Your task to perform on an android device: open app "Adobe Express: Graphic Design" (install if not already installed) Image 0: 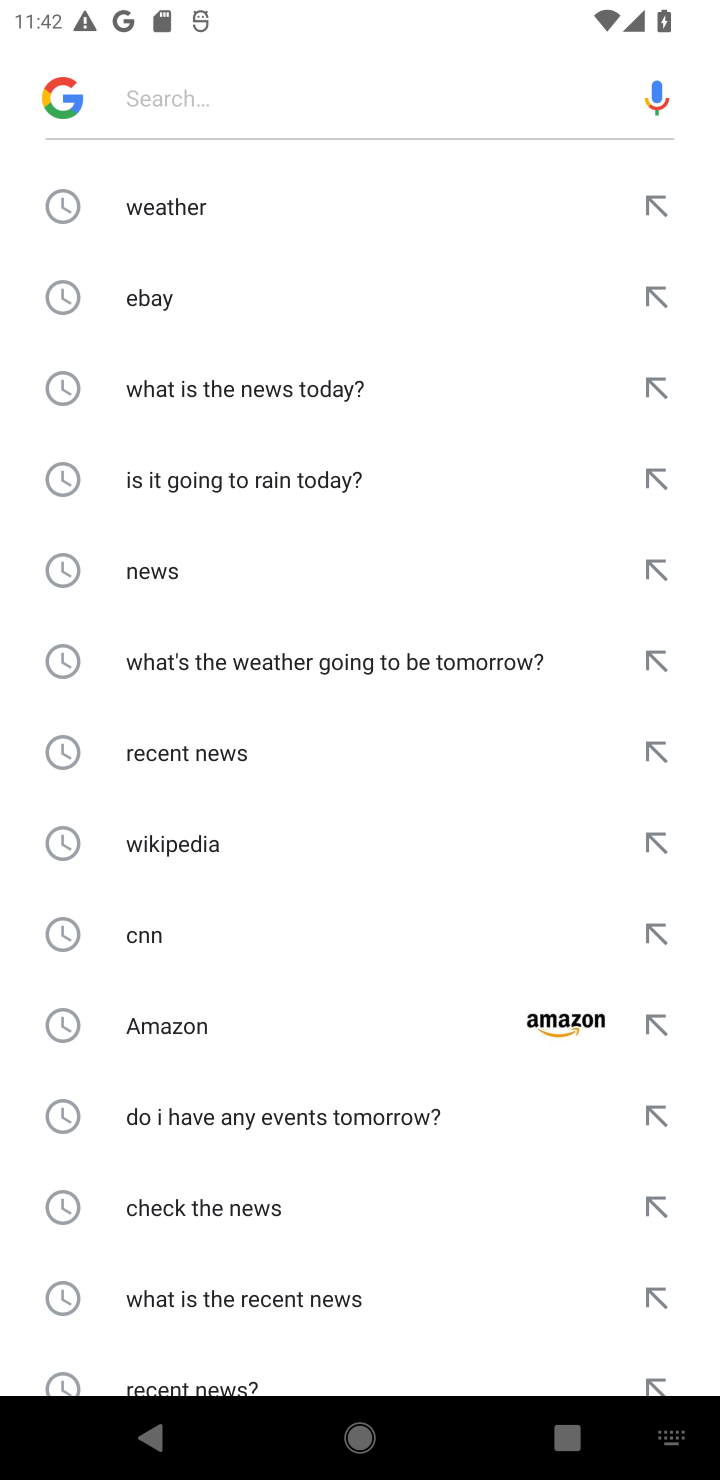
Step 0: press back button
Your task to perform on an android device: open app "Adobe Express: Graphic Design" (install if not already installed) Image 1: 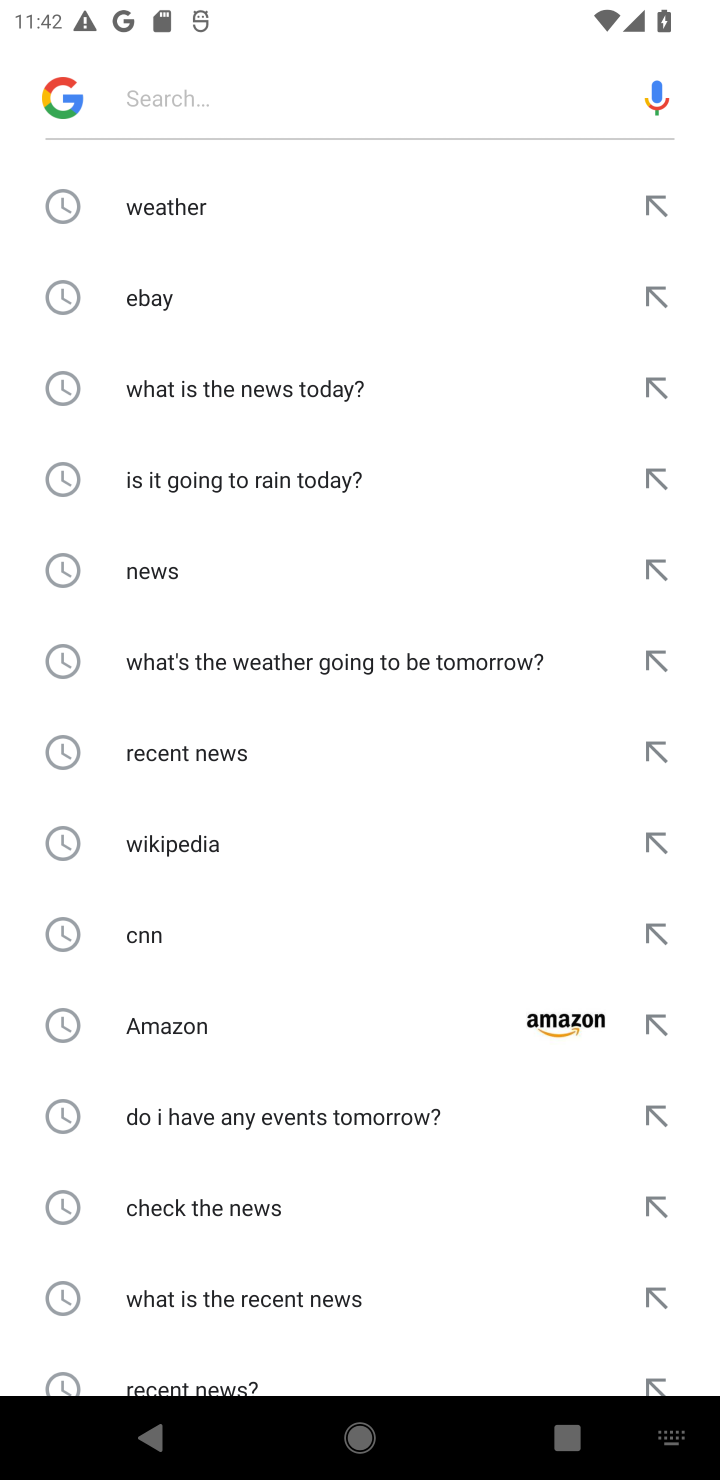
Step 1: press back button
Your task to perform on an android device: open app "Adobe Express: Graphic Design" (install if not already installed) Image 2: 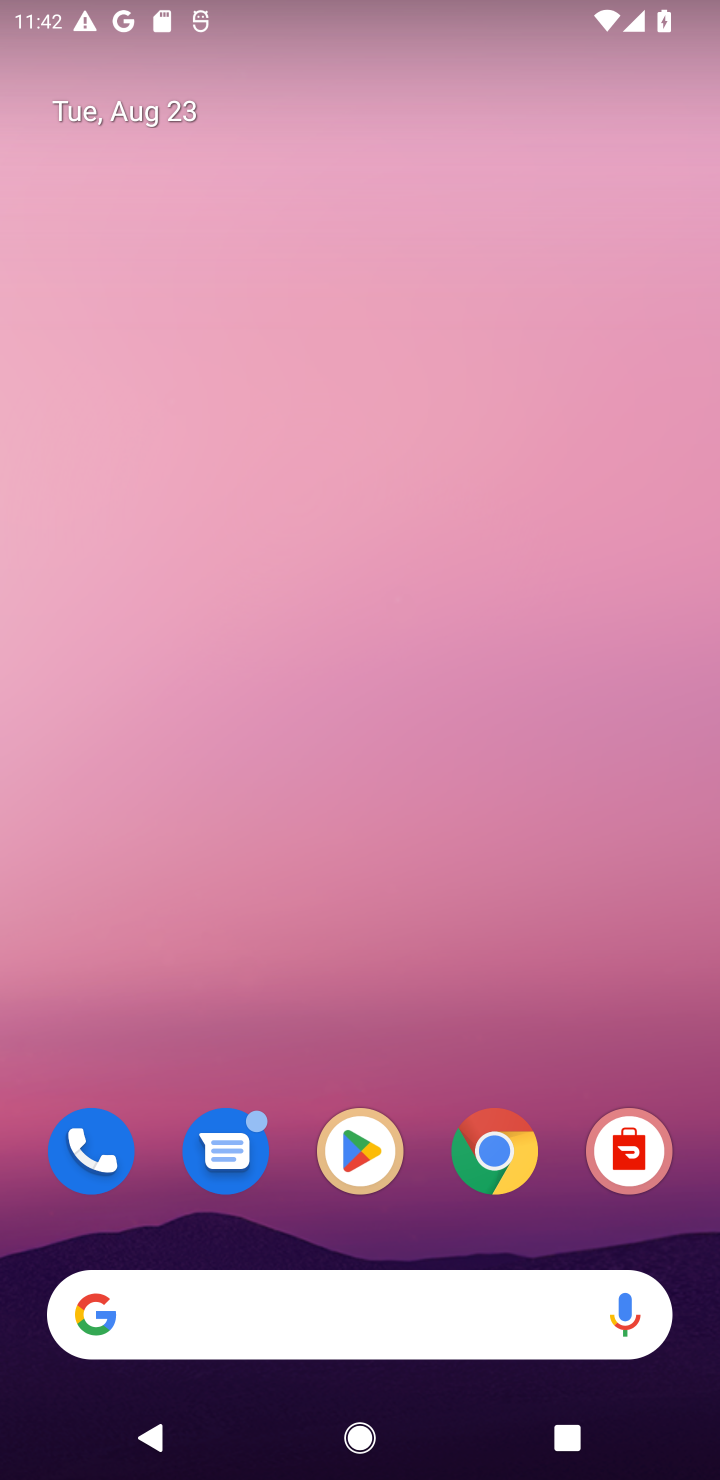
Step 2: press back button
Your task to perform on an android device: open app "Adobe Express: Graphic Design" (install if not already installed) Image 3: 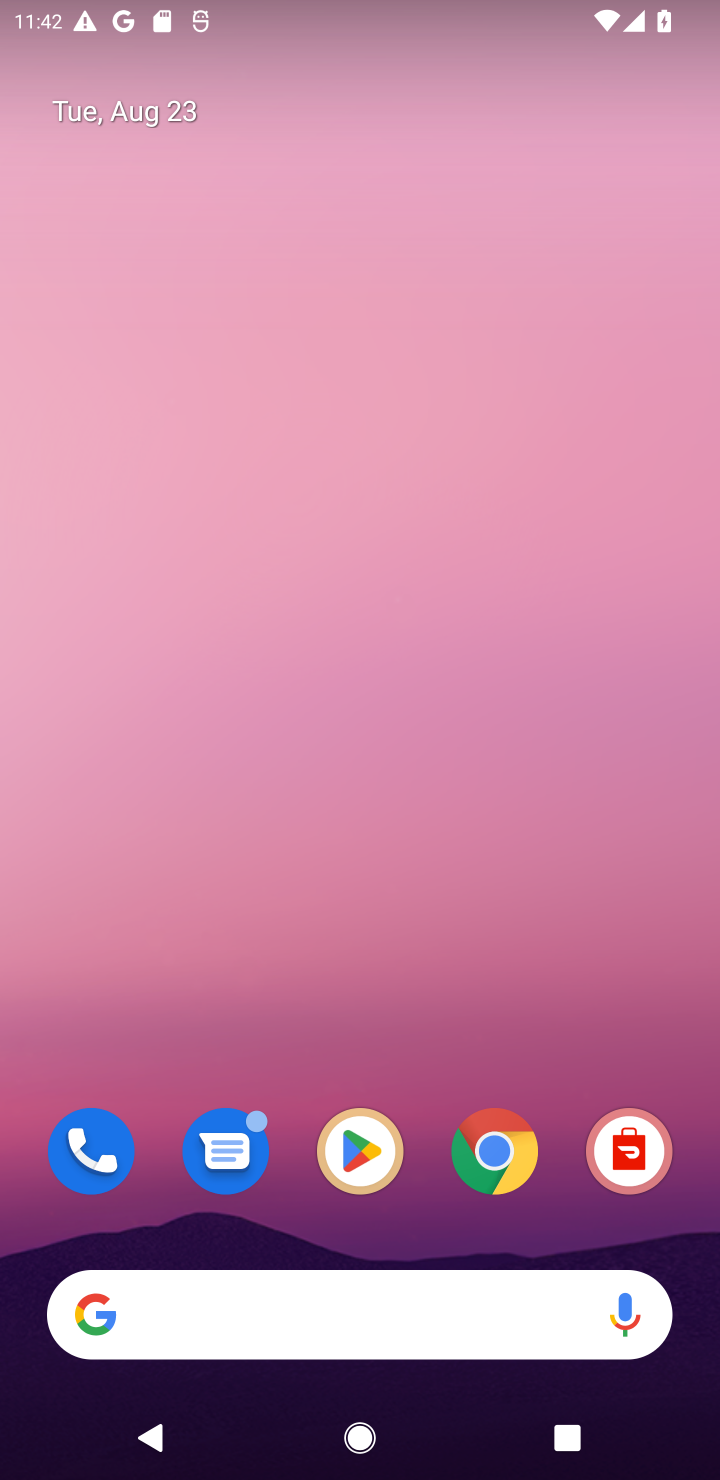
Step 3: click (369, 1125)
Your task to perform on an android device: open app "Adobe Express: Graphic Design" (install if not already installed) Image 4: 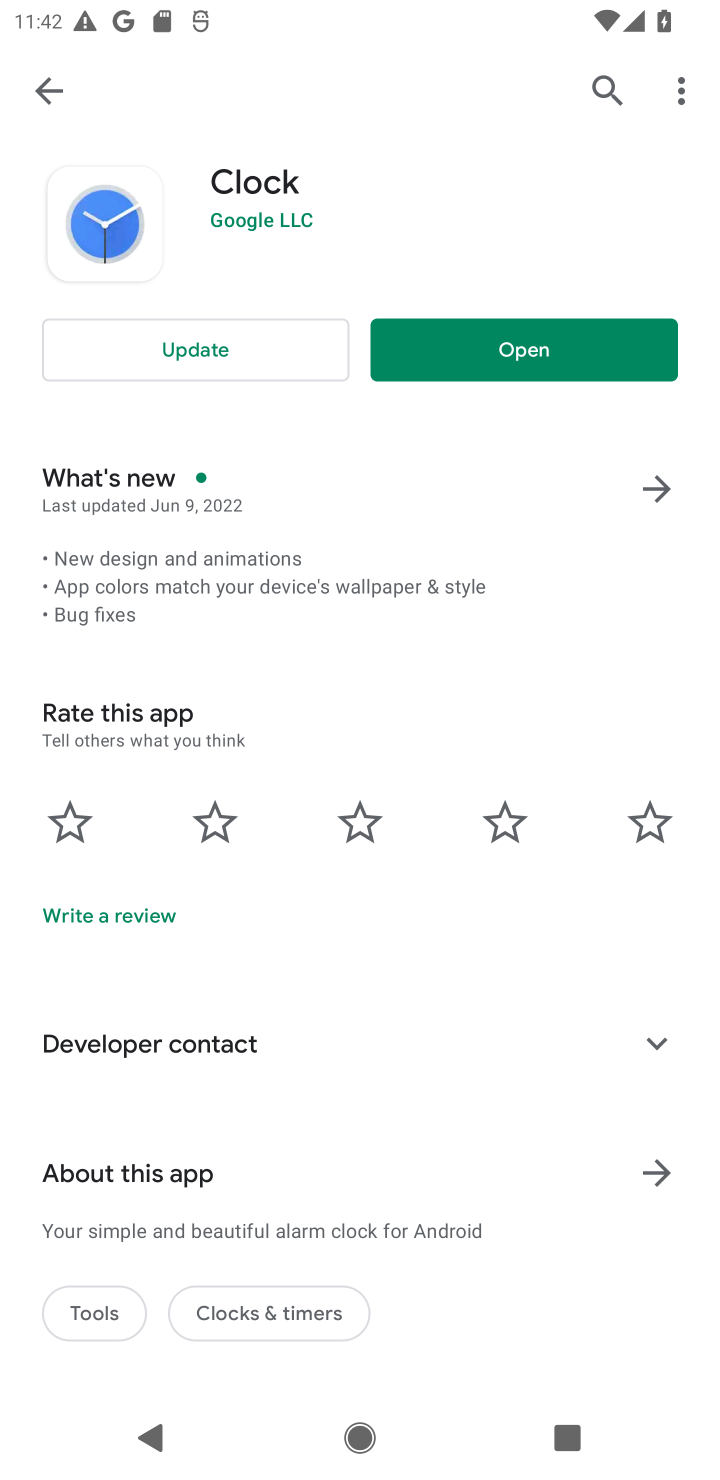
Step 4: click (602, 88)
Your task to perform on an android device: open app "Adobe Express: Graphic Design" (install if not already installed) Image 5: 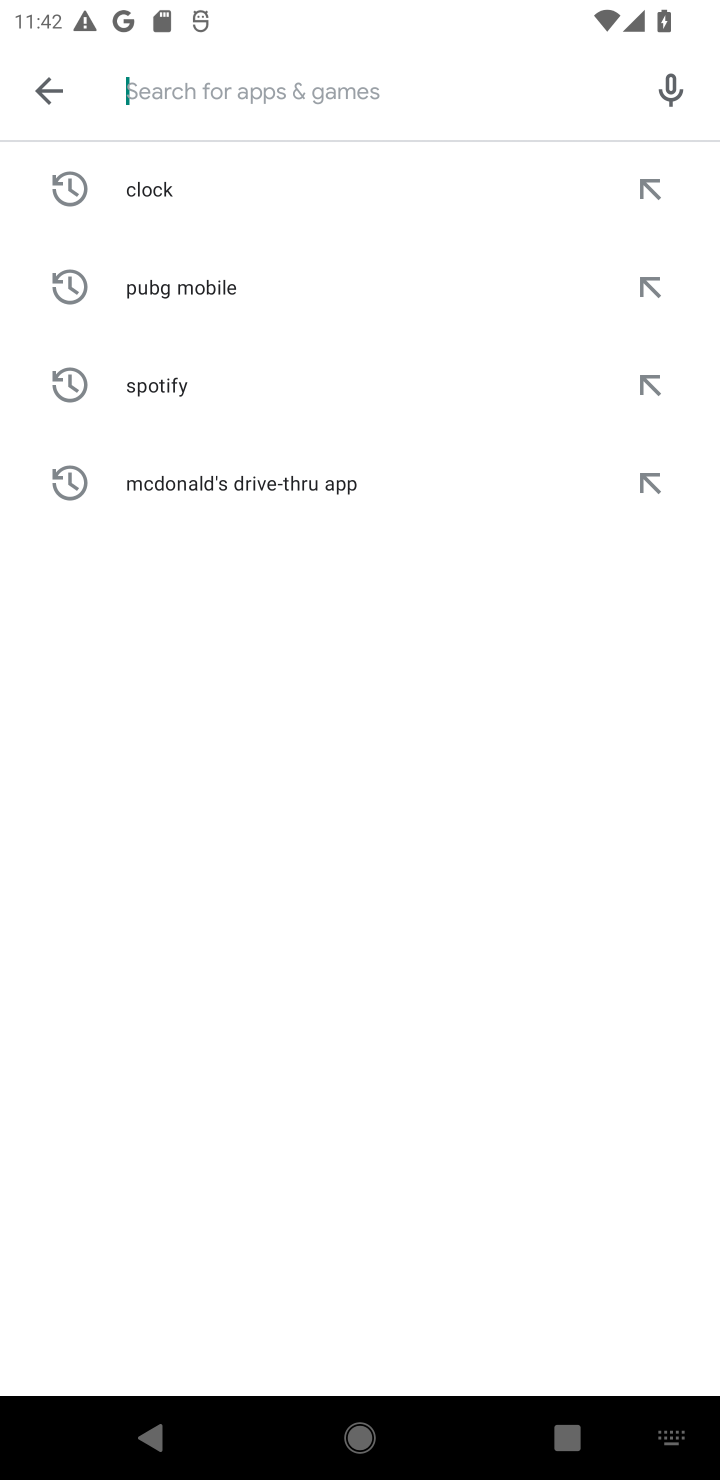
Step 5: type "Adobe Express: Graphic Design"
Your task to perform on an android device: open app "Adobe Express: Graphic Design" (install if not already installed) Image 6: 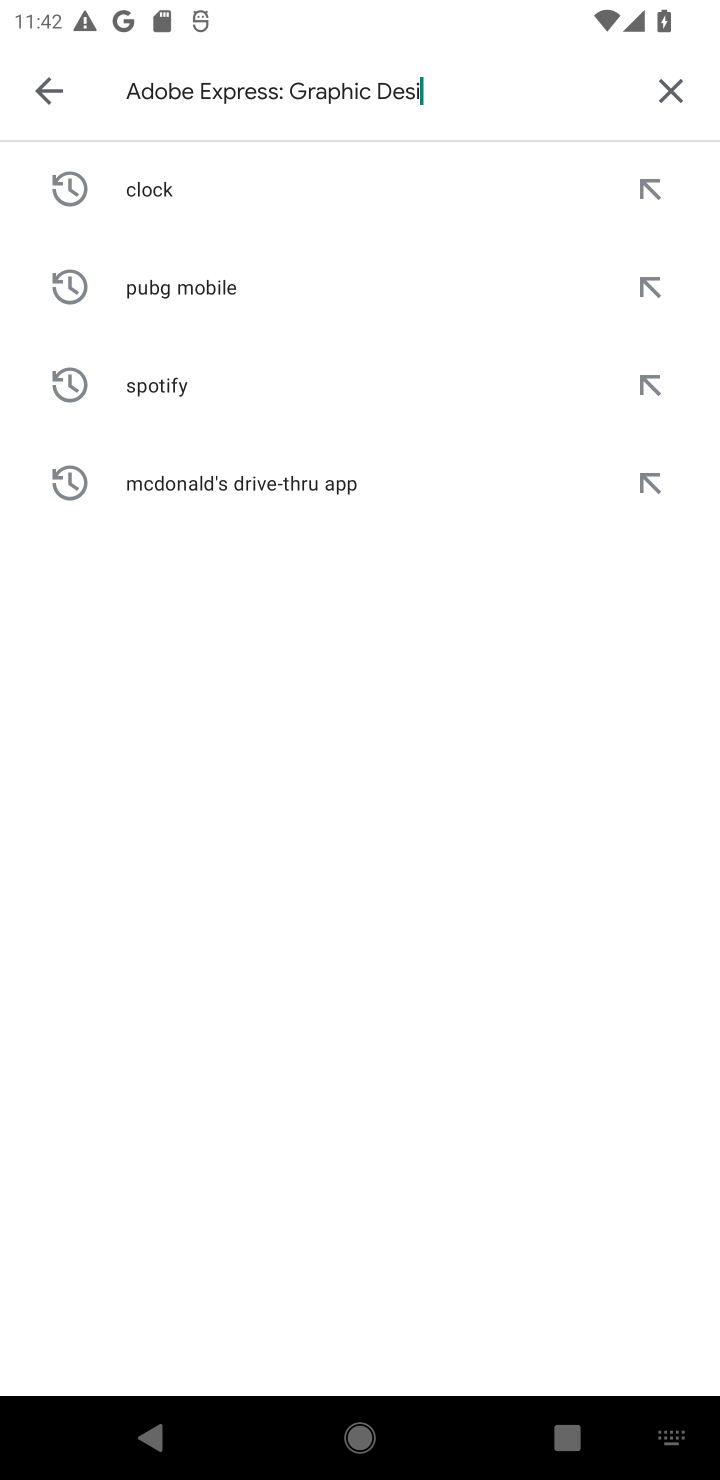
Step 6: type ""
Your task to perform on an android device: open app "Adobe Express: Graphic Design" (install if not already installed) Image 7: 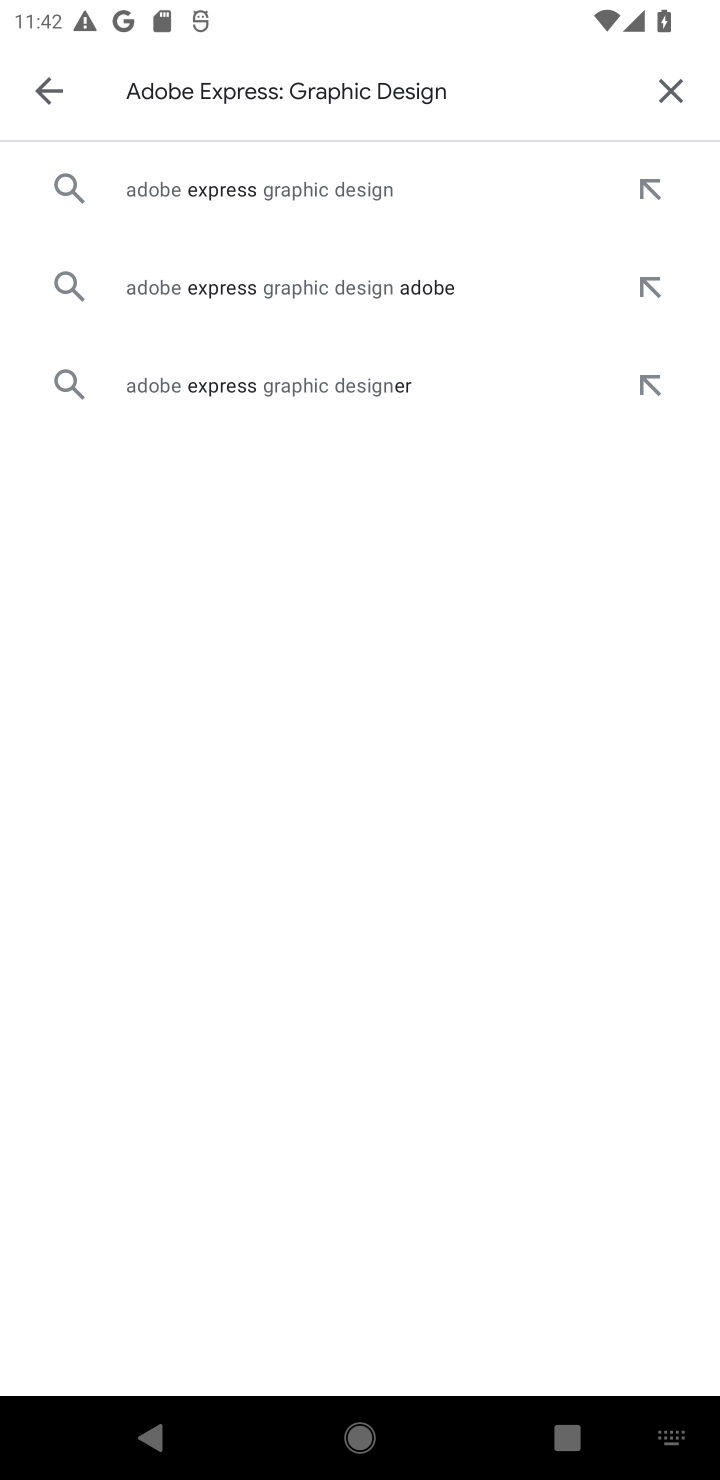
Step 7: click (216, 205)
Your task to perform on an android device: open app "Adobe Express: Graphic Design" (install if not already installed) Image 8: 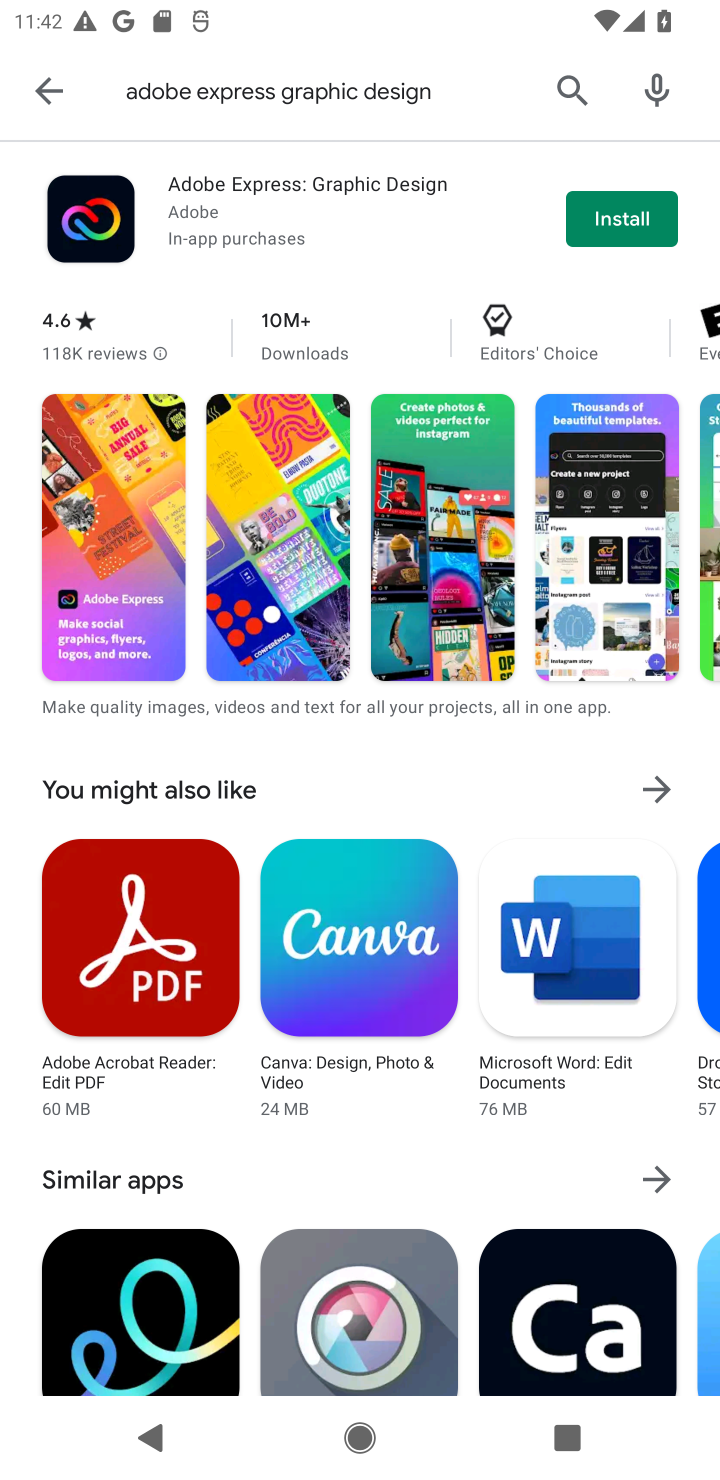
Step 8: click (602, 212)
Your task to perform on an android device: open app "Adobe Express: Graphic Design" (install if not already installed) Image 9: 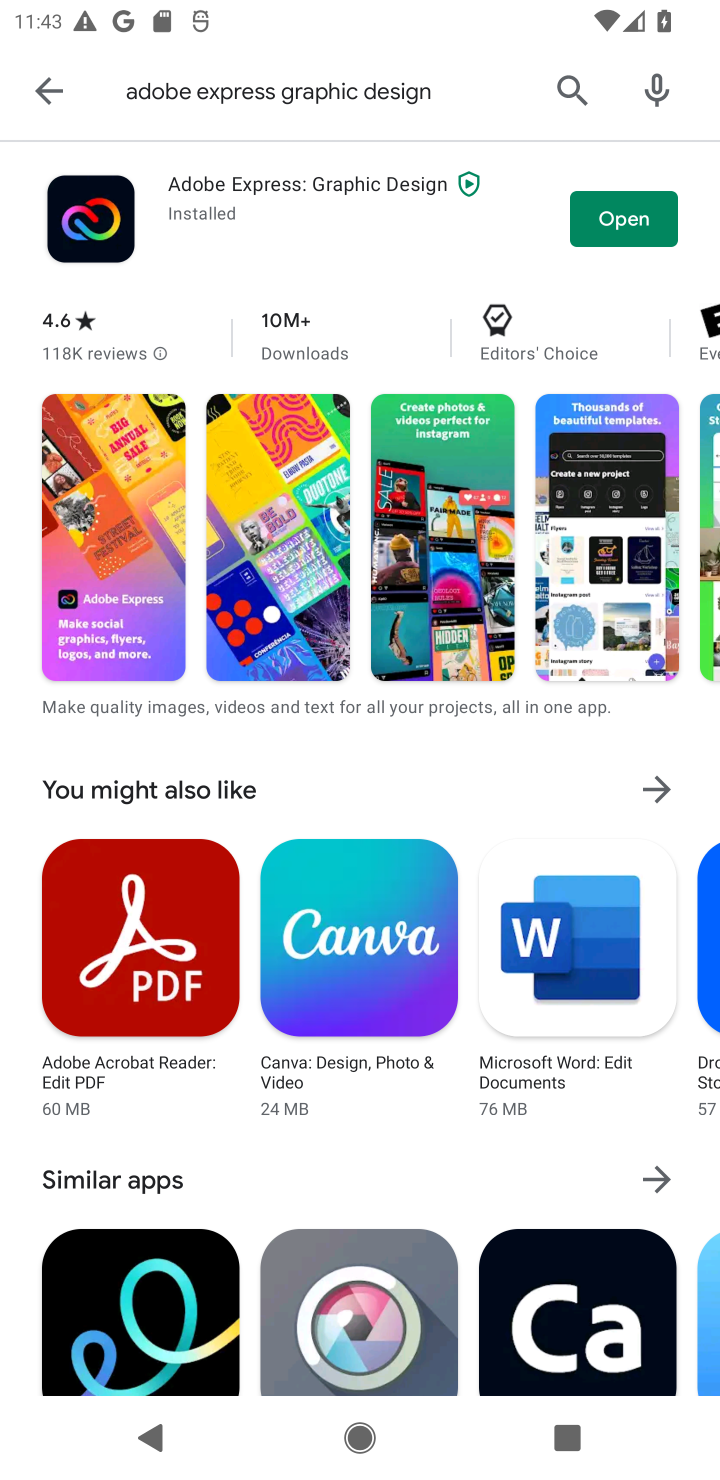
Step 9: task complete